Your task to perform on an android device: show emergency info Image 0: 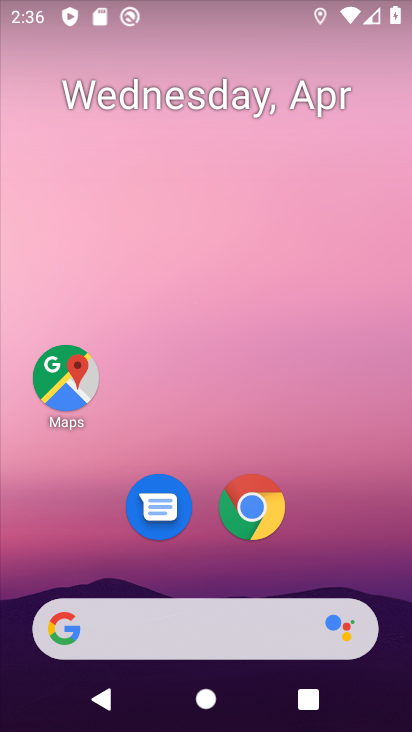
Step 0: drag from (317, 580) to (122, 103)
Your task to perform on an android device: show emergency info Image 1: 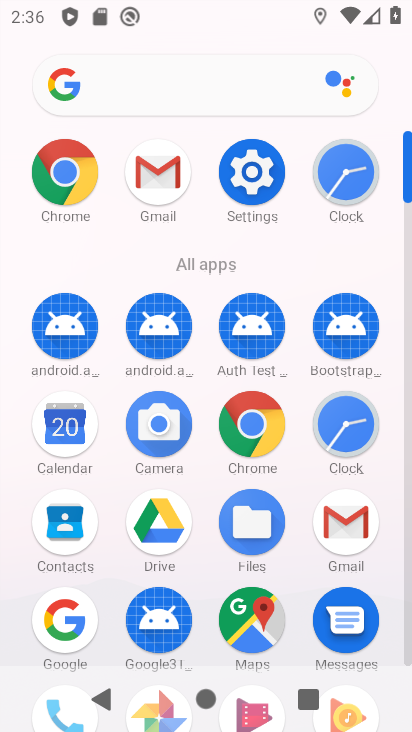
Step 1: click (248, 185)
Your task to perform on an android device: show emergency info Image 2: 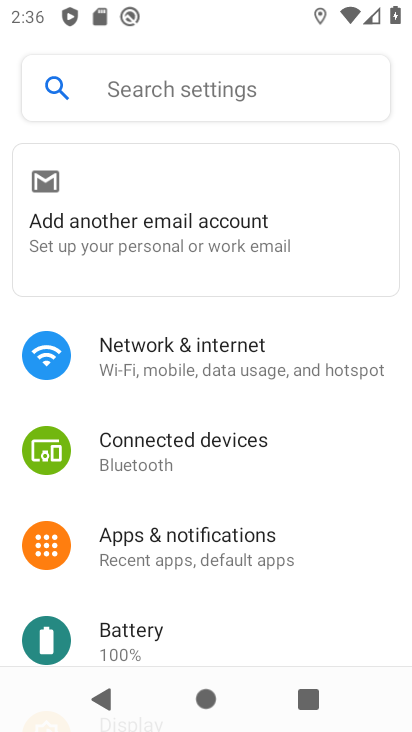
Step 2: click (198, 85)
Your task to perform on an android device: show emergency info Image 3: 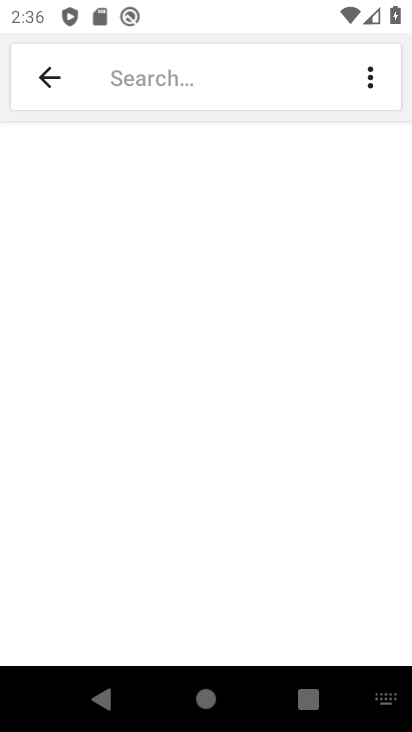
Step 3: type "emergency info"
Your task to perform on an android device: show emergency info Image 4: 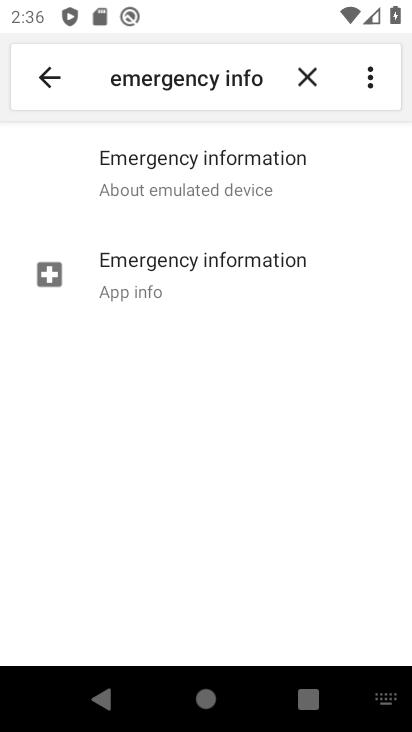
Step 4: click (169, 149)
Your task to perform on an android device: show emergency info Image 5: 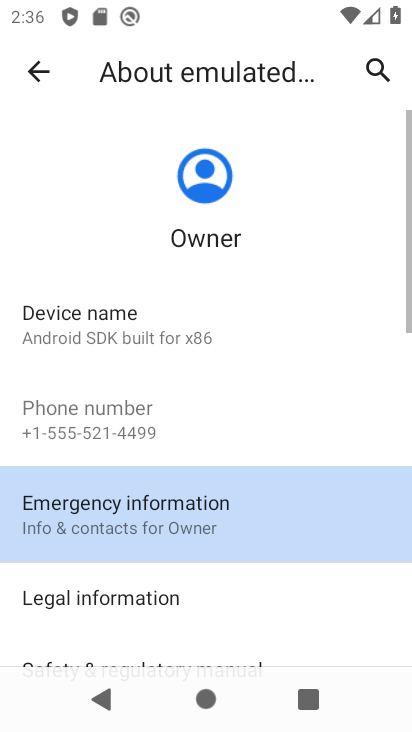
Step 5: click (83, 520)
Your task to perform on an android device: show emergency info Image 6: 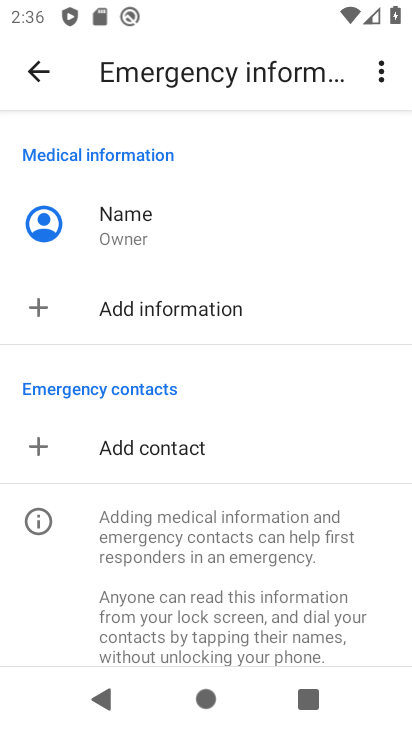
Step 6: task complete